Your task to perform on an android device: snooze an email in the gmail app Image 0: 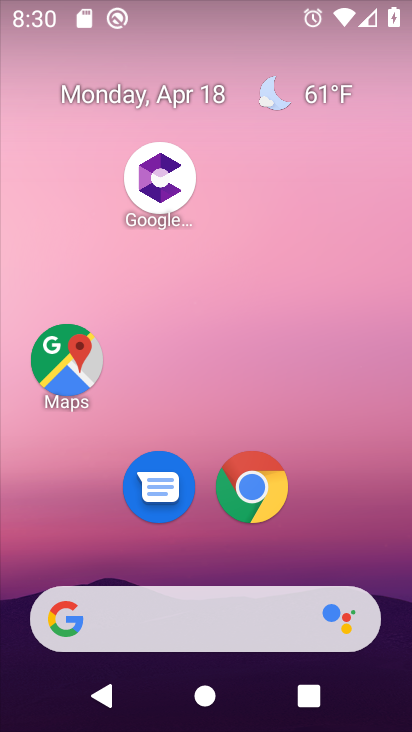
Step 0: drag from (202, 558) to (202, 61)
Your task to perform on an android device: snooze an email in the gmail app Image 1: 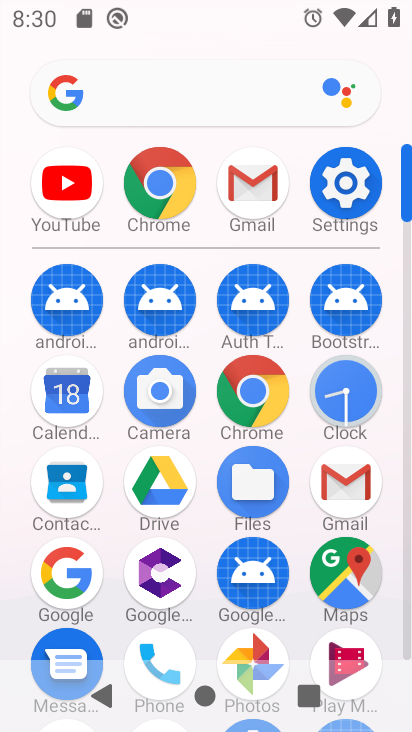
Step 1: click (253, 168)
Your task to perform on an android device: snooze an email in the gmail app Image 2: 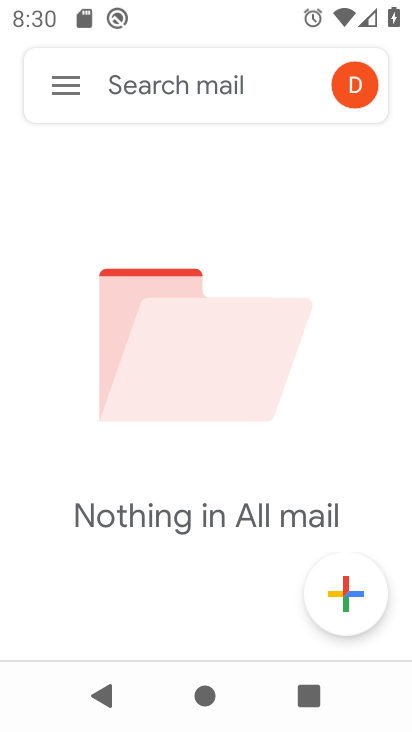
Step 2: task complete